Your task to perform on an android device: turn off picture-in-picture Image 0: 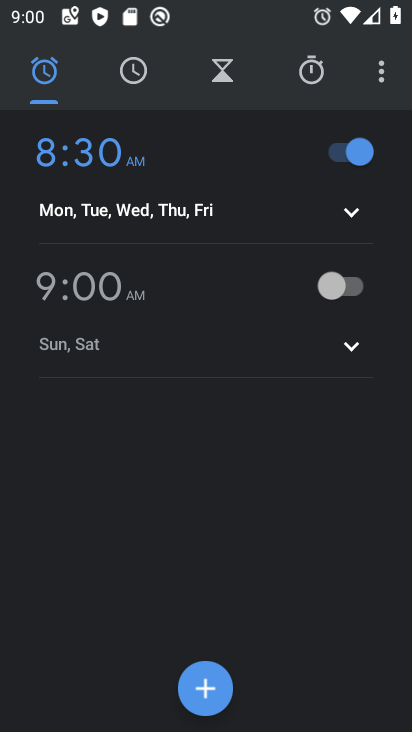
Step 0: press home button
Your task to perform on an android device: turn off picture-in-picture Image 1: 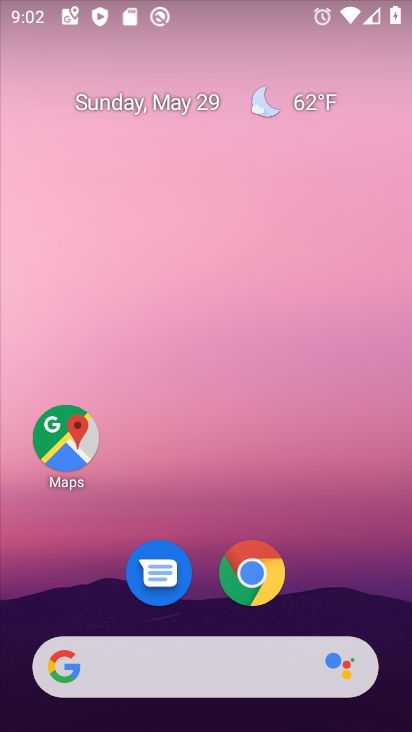
Step 1: click (251, 578)
Your task to perform on an android device: turn off picture-in-picture Image 2: 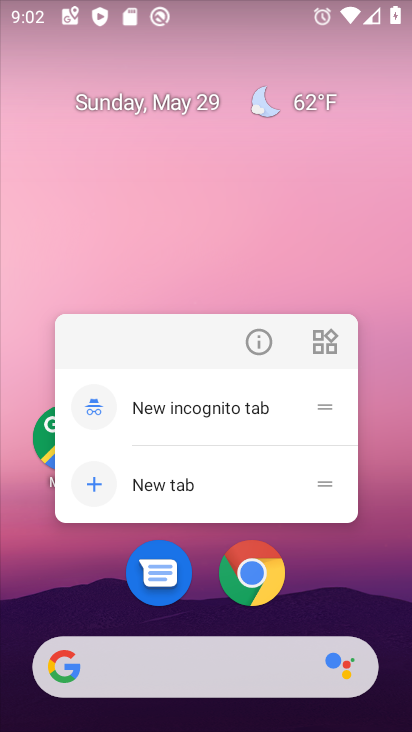
Step 2: click (260, 344)
Your task to perform on an android device: turn off picture-in-picture Image 3: 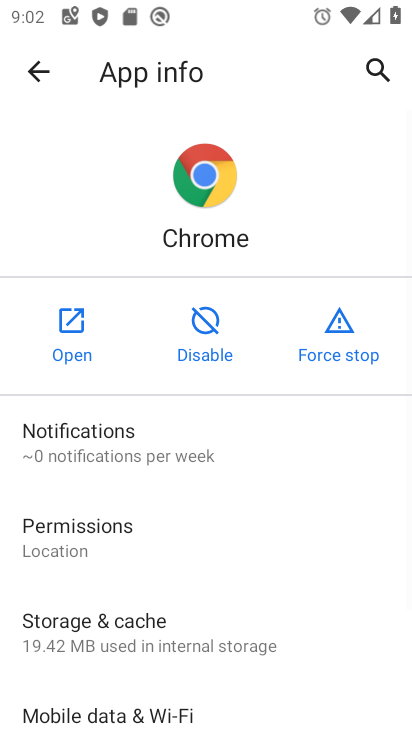
Step 3: drag from (336, 650) to (313, 43)
Your task to perform on an android device: turn off picture-in-picture Image 4: 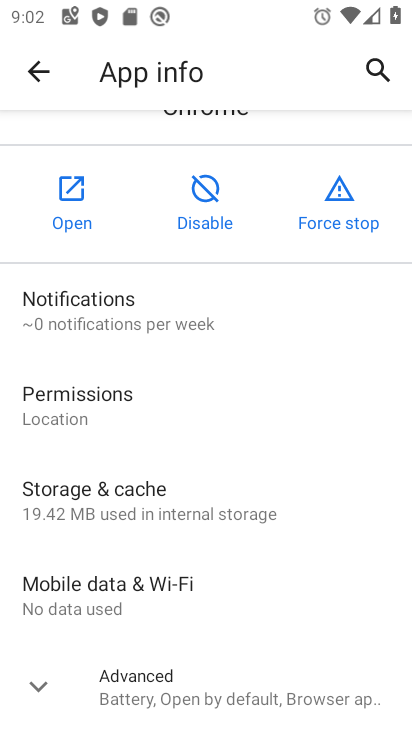
Step 4: click (133, 692)
Your task to perform on an android device: turn off picture-in-picture Image 5: 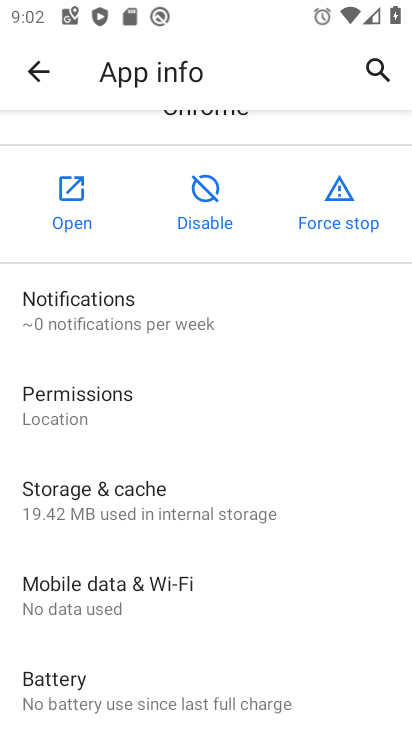
Step 5: drag from (267, 621) to (206, 42)
Your task to perform on an android device: turn off picture-in-picture Image 6: 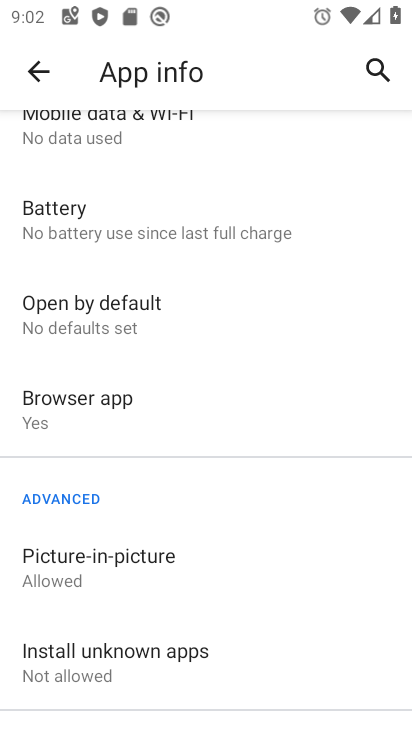
Step 6: click (118, 558)
Your task to perform on an android device: turn off picture-in-picture Image 7: 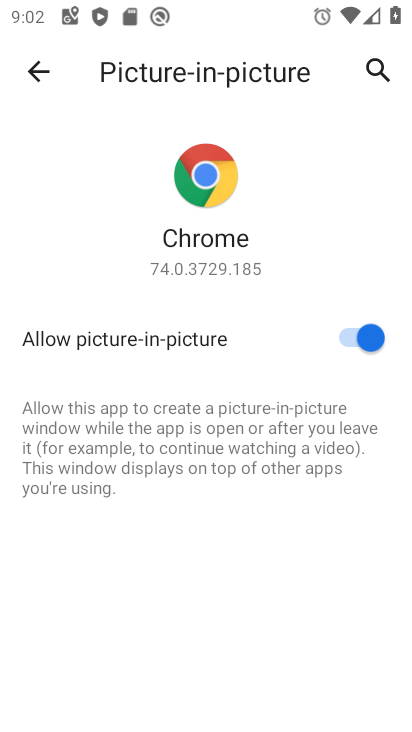
Step 7: click (364, 338)
Your task to perform on an android device: turn off picture-in-picture Image 8: 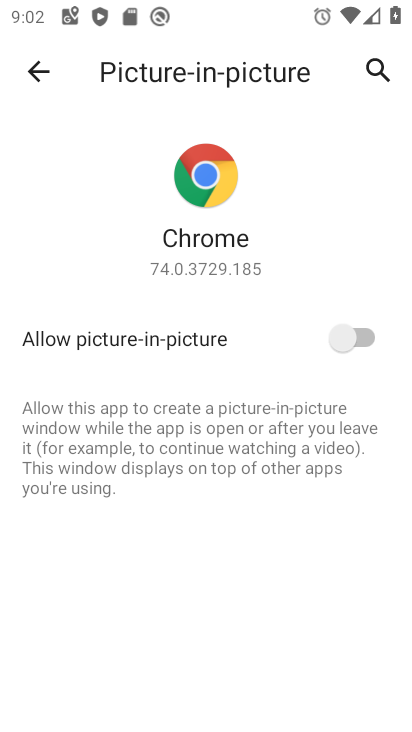
Step 8: task complete